Your task to perform on an android device: turn vacation reply on in the gmail app Image 0: 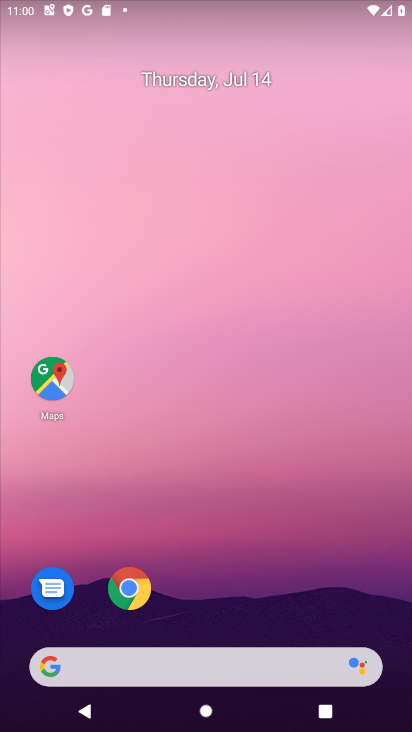
Step 0: press home button
Your task to perform on an android device: turn vacation reply on in the gmail app Image 1: 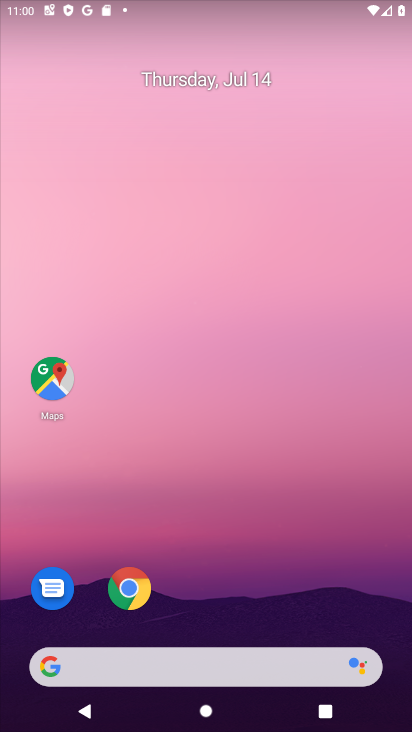
Step 1: drag from (200, 655) to (362, 142)
Your task to perform on an android device: turn vacation reply on in the gmail app Image 2: 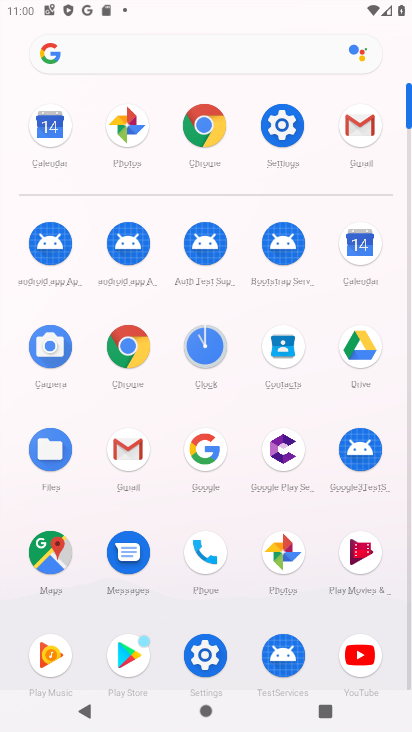
Step 2: click (353, 137)
Your task to perform on an android device: turn vacation reply on in the gmail app Image 3: 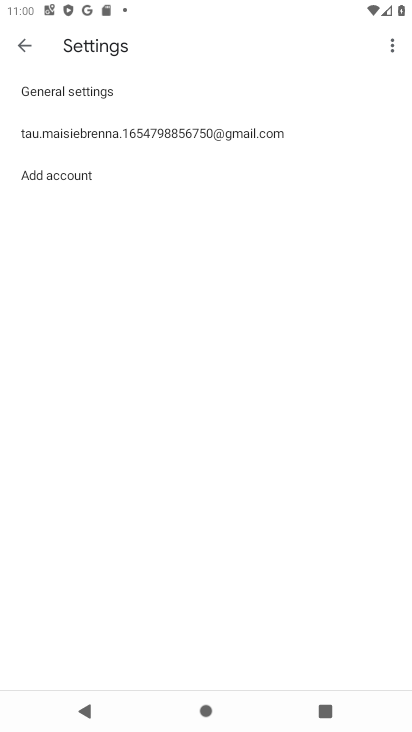
Step 3: click (98, 132)
Your task to perform on an android device: turn vacation reply on in the gmail app Image 4: 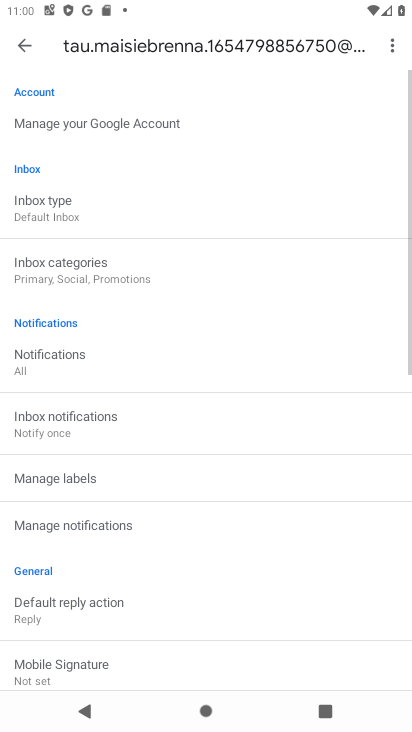
Step 4: drag from (227, 613) to (392, 146)
Your task to perform on an android device: turn vacation reply on in the gmail app Image 5: 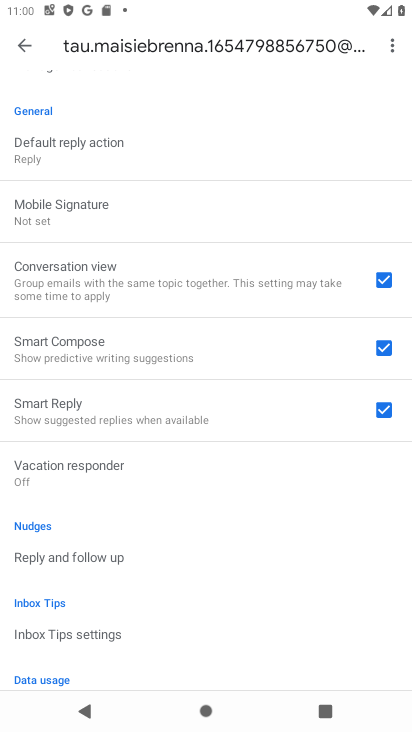
Step 5: click (118, 457)
Your task to perform on an android device: turn vacation reply on in the gmail app Image 6: 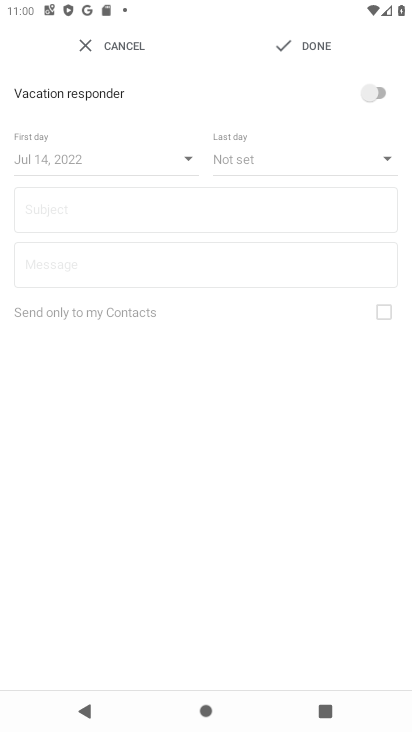
Step 6: click (383, 90)
Your task to perform on an android device: turn vacation reply on in the gmail app Image 7: 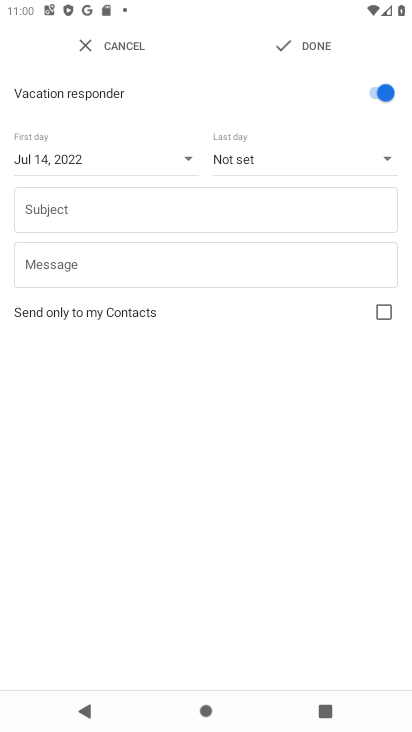
Step 7: task complete